Your task to perform on an android device: turn off sleep mode Image 0: 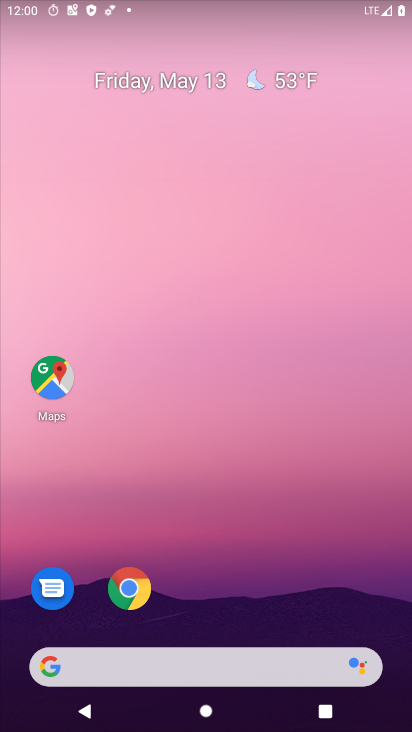
Step 0: drag from (263, 575) to (258, 145)
Your task to perform on an android device: turn off sleep mode Image 1: 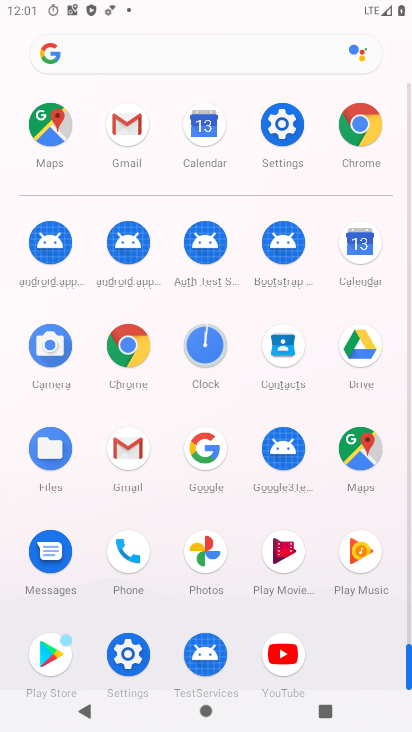
Step 1: click (276, 125)
Your task to perform on an android device: turn off sleep mode Image 2: 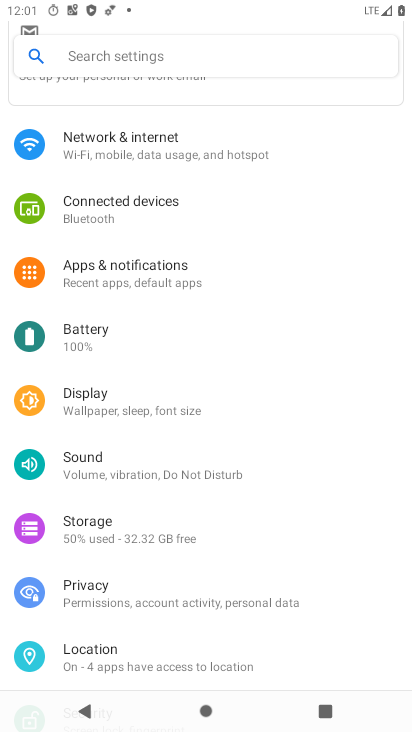
Step 2: drag from (196, 539) to (302, 170)
Your task to perform on an android device: turn off sleep mode Image 3: 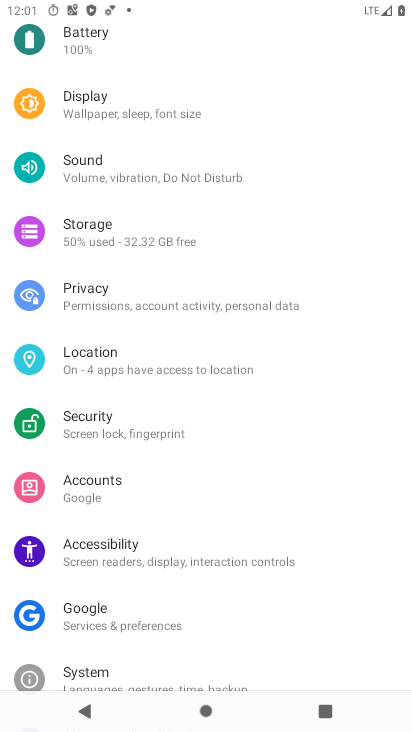
Step 3: drag from (157, 442) to (227, 297)
Your task to perform on an android device: turn off sleep mode Image 4: 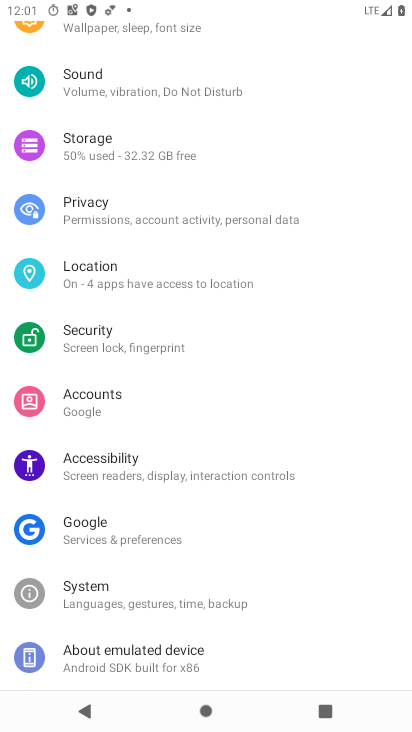
Step 4: drag from (170, 196) to (196, 588)
Your task to perform on an android device: turn off sleep mode Image 5: 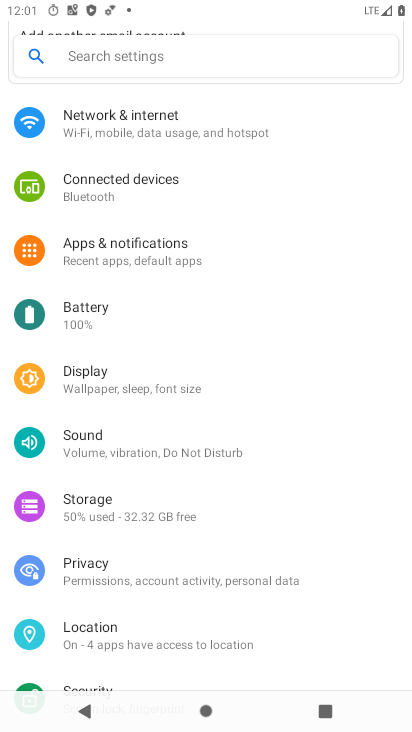
Step 5: click (105, 384)
Your task to perform on an android device: turn off sleep mode Image 6: 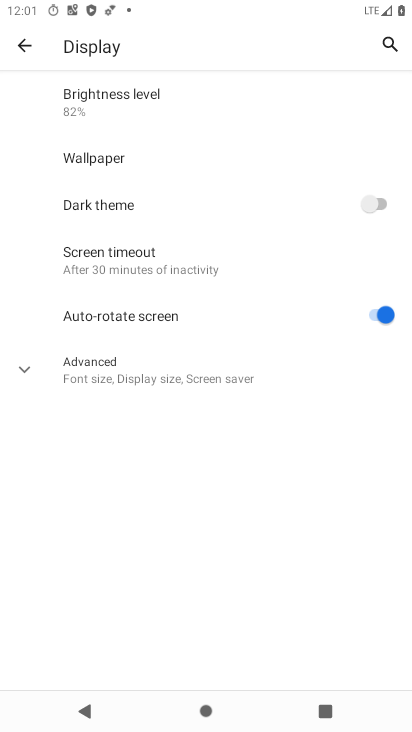
Step 6: click (150, 267)
Your task to perform on an android device: turn off sleep mode Image 7: 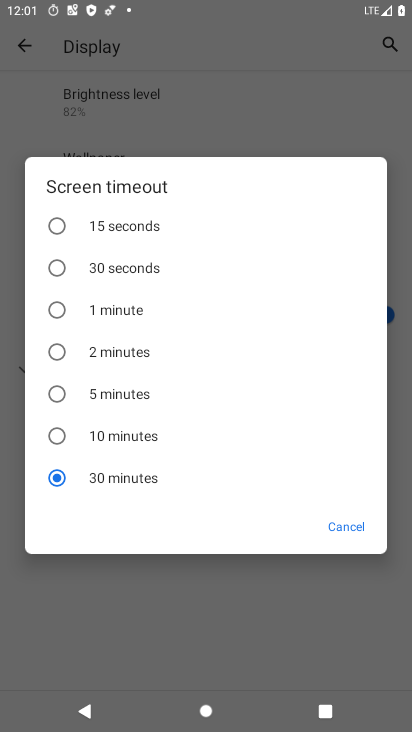
Step 7: task complete